Your task to perform on an android device: Go to Android settings Image 0: 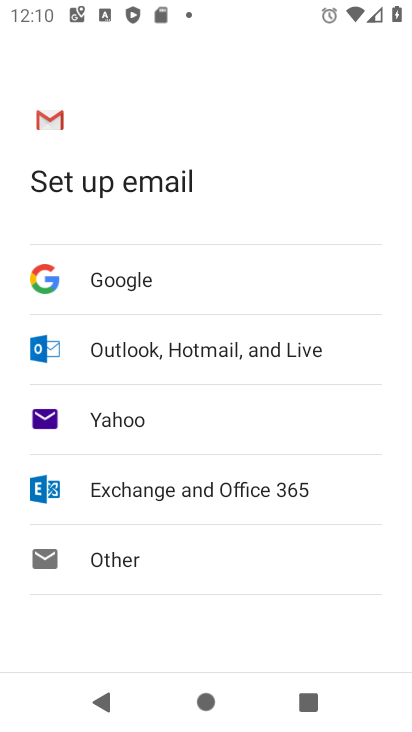
Step 0: press home button
Your task to perform on an android device: Go to Android settings Image 1: 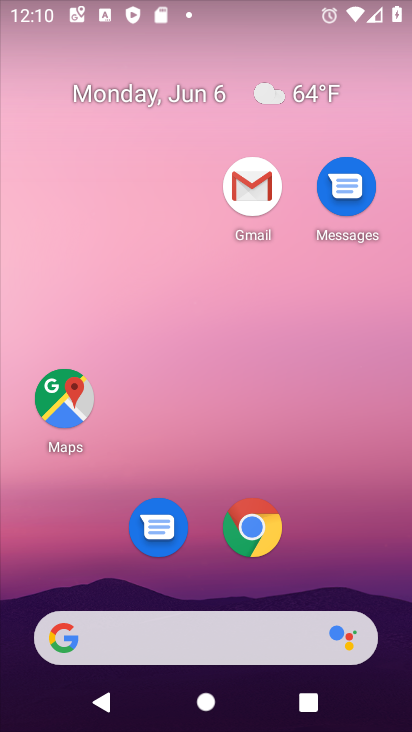
Step 1: drag from (316, 580) to (283, 162)
Your task to perform on an android device: Go to Android settings Image 2: 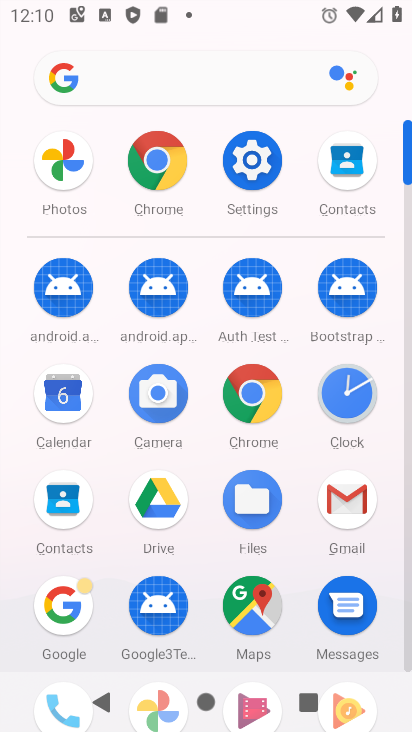
Step 2: click (261, 155)
Your task to perform on an android device: Go to Android settings Image 3: 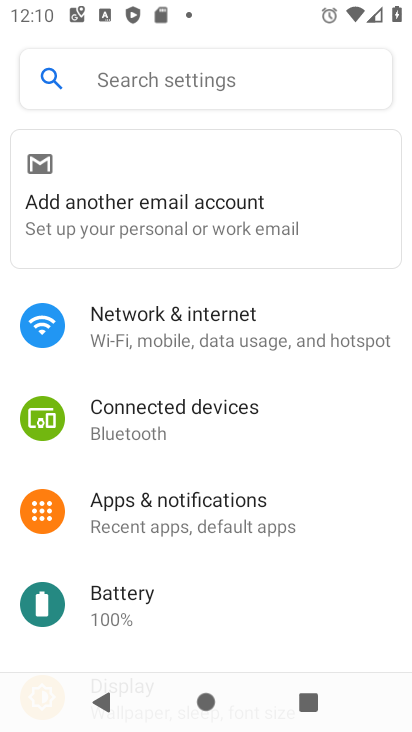
Step 3: drag from (296, 634) to (229, 269)
Your task to perform on an android device: Go to Android settings Image 4: 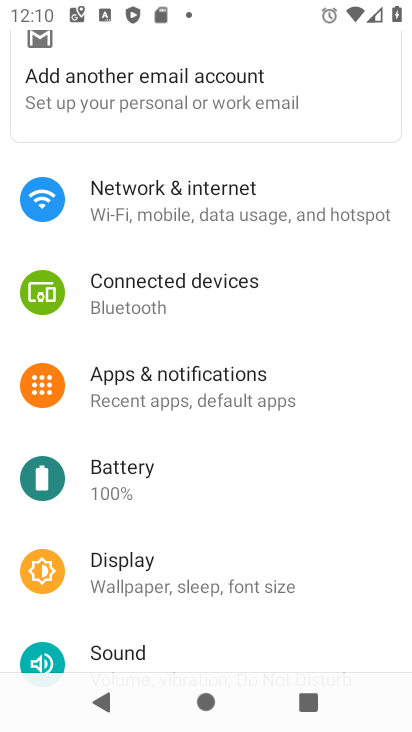
Step 4: drag from (276, 608) to (276, 215)
Your task to perform on an android device: Go to Android settings Image 5: 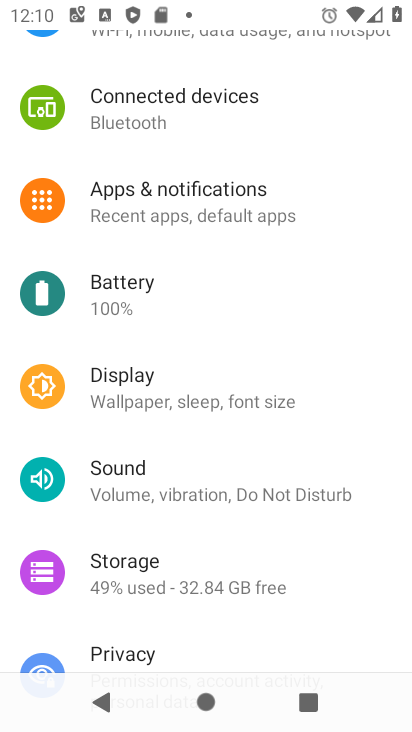
Step 5: drag from (293, 629) to (299, 145)
Your task to perform on an android device: Go to Android settings Image 6: 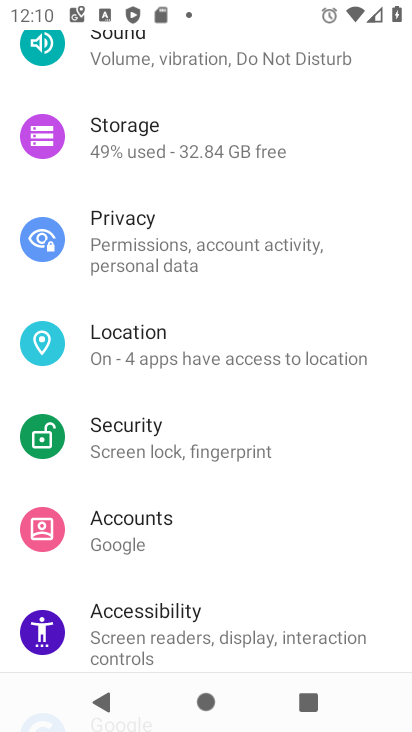
Step 6: drag from (261, 546) to (201, 1)
Your task to perform on an android device: Go to Android settings Image 7: 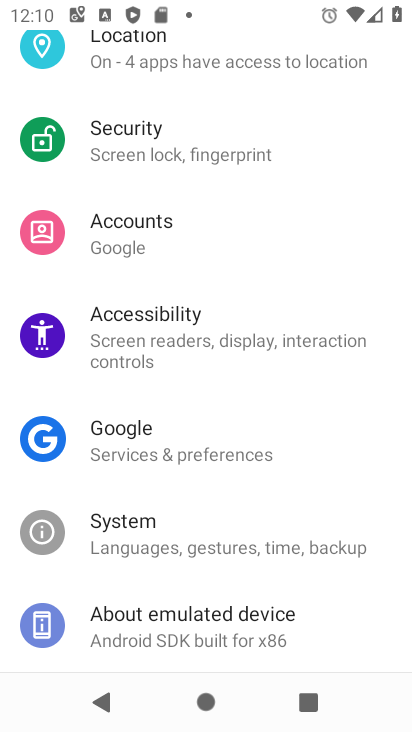
Step 7: click (210, 632)
Your task to perform on an android device: Go to Android settings Image 8: 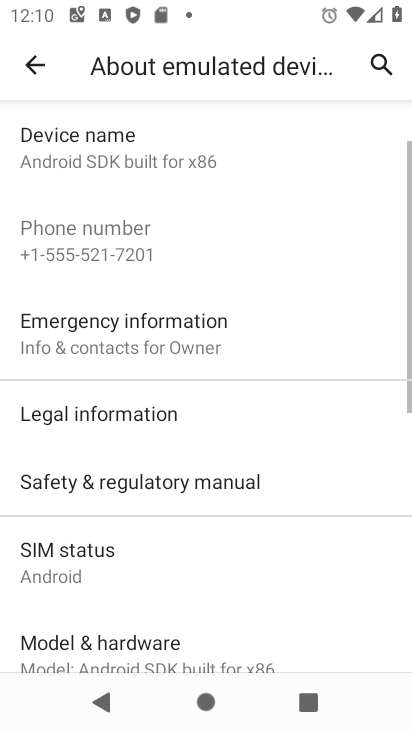
Step 8: drag from (261, 573) to (208, 119)
Your task to perform on an android device: Go to Android settings Image 9: 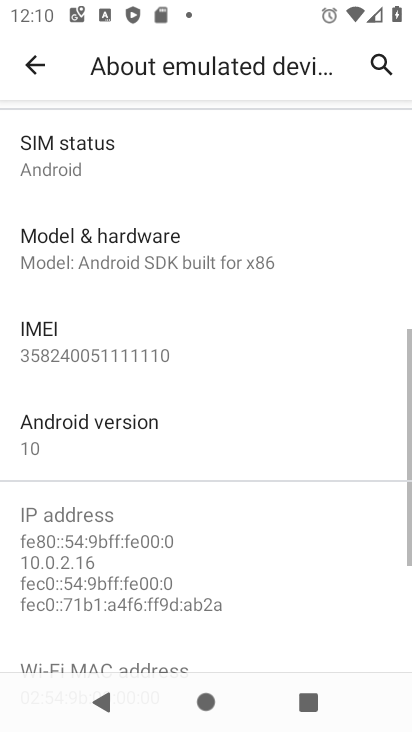
Step 9: click (77, 435)
Your task to perform on an android device: Go to Android settings Image 10: 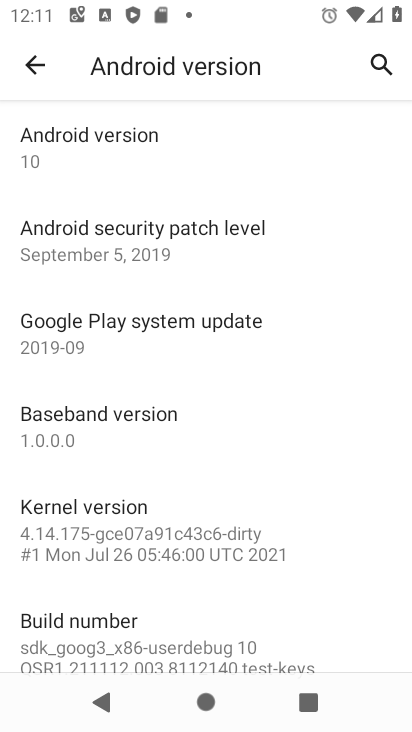
Step 10: task complete